Your task to perform on an android device: Open calendar and show me the third week of next month Image 0: 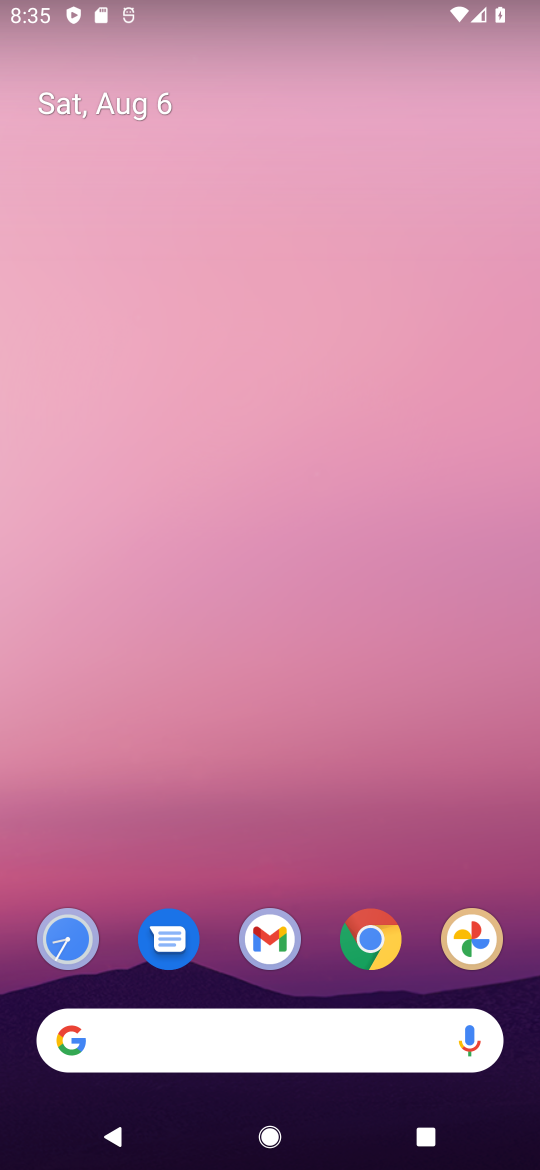
Step 0: drag from (314, 1025) to (328, 18)
Your task to perform on an android device: Open calendar and show me the third week of next month Image 1: 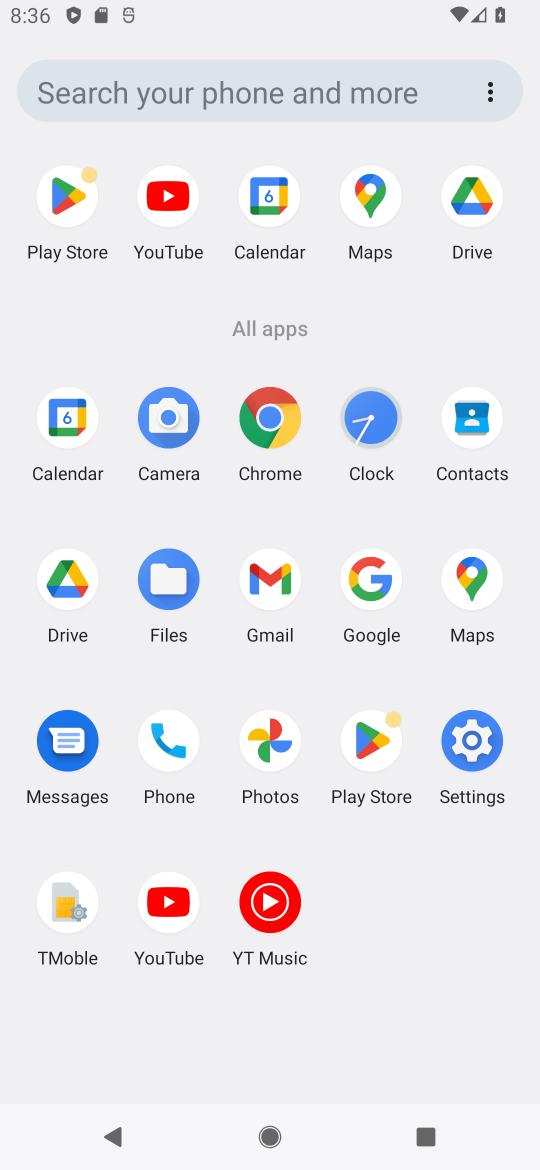
Step 1: click (55, 415)
Your task to perform on an android device: Open calendar and show me the third week of next month Image 2: 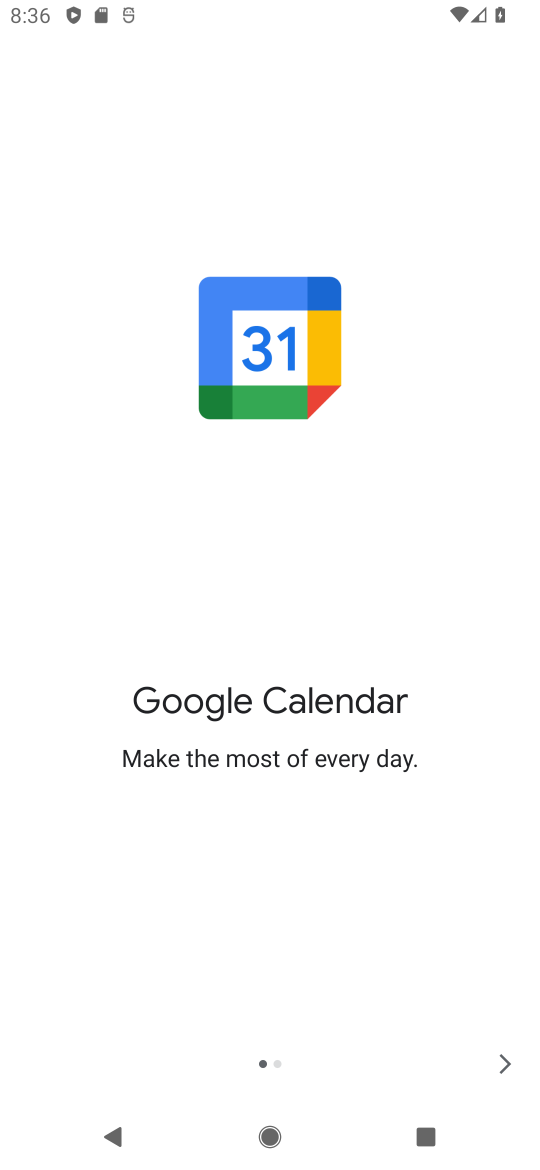
Step 2: click (495, 1070)
Your task to perform on an android device: Open calendar and show me the third week of next month Image 3: 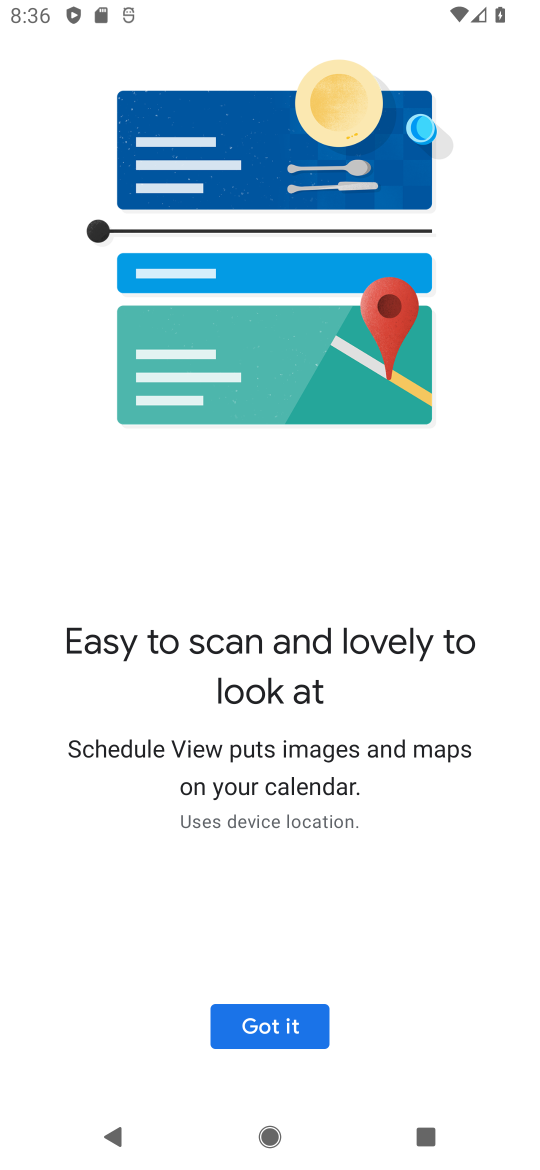
Step 3: click (495, 1070)
Your task to perform on an android device: Open calendar and show me the third week of next month Image 4: 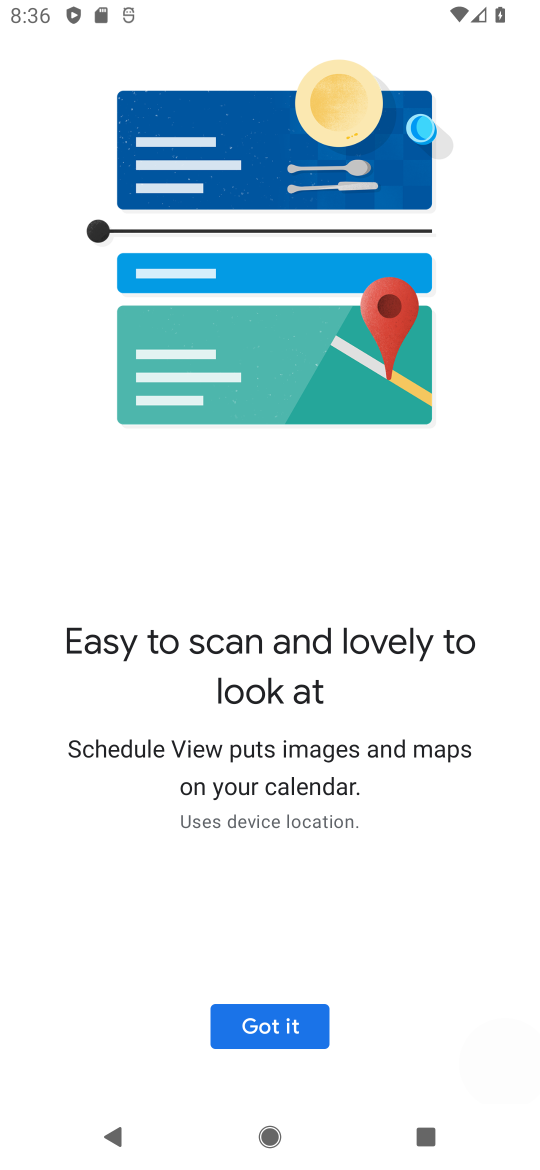
Step 4: click (306, 1037)
Your task to perform on an android device: Open calendar and show me the third week of next month Image 5: 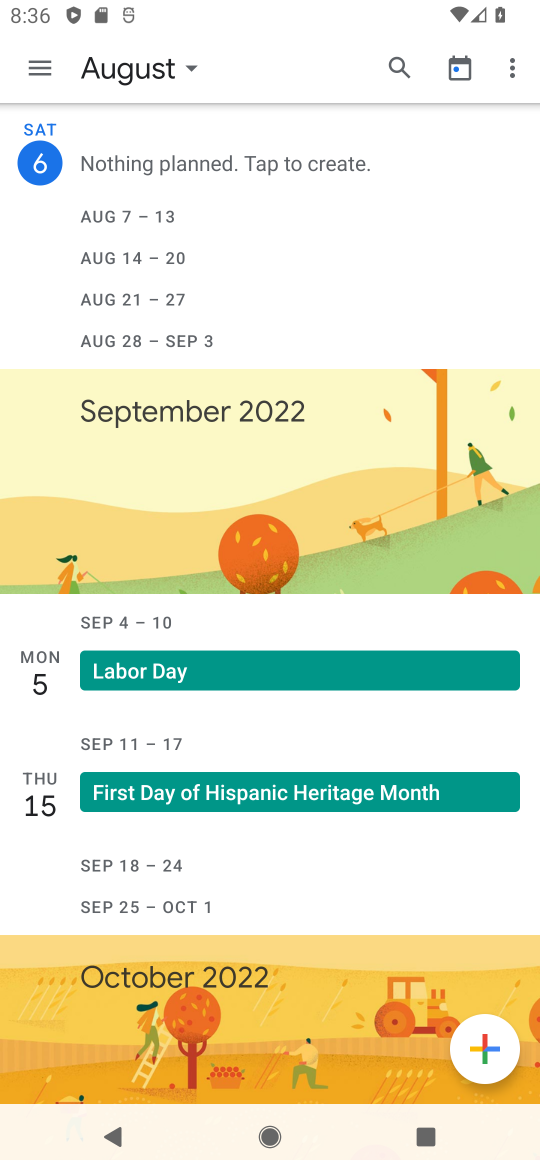
Step 5: click (37, 66)
Your task to perform on an android device: Open calendar and show me the third week of next month Image 6: 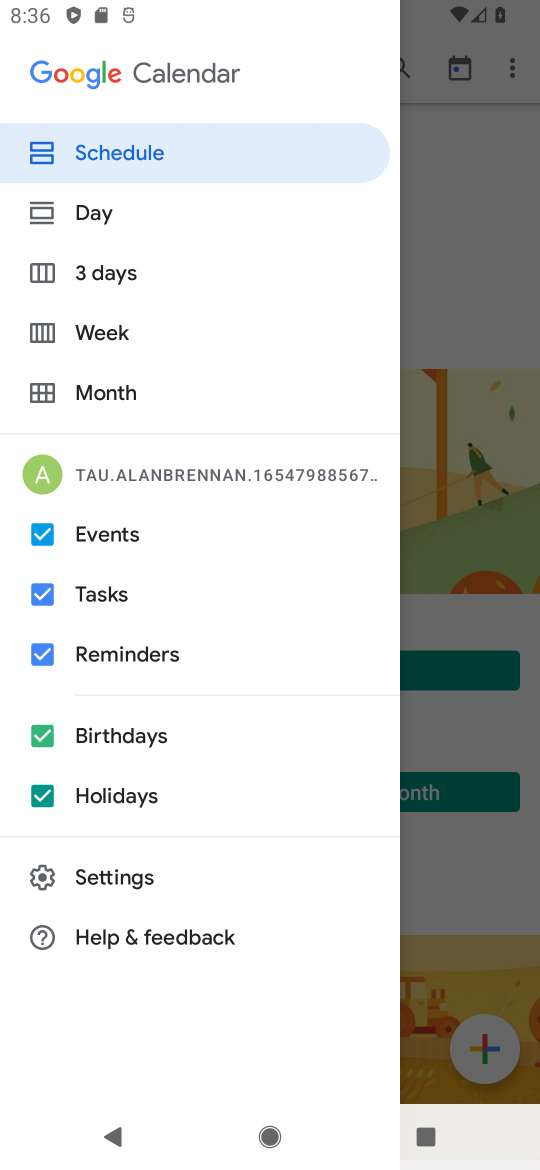
Step 6: click (75, 334)
Your task to perform on an android device: Open calendar and show me the third week of next month Image 7: 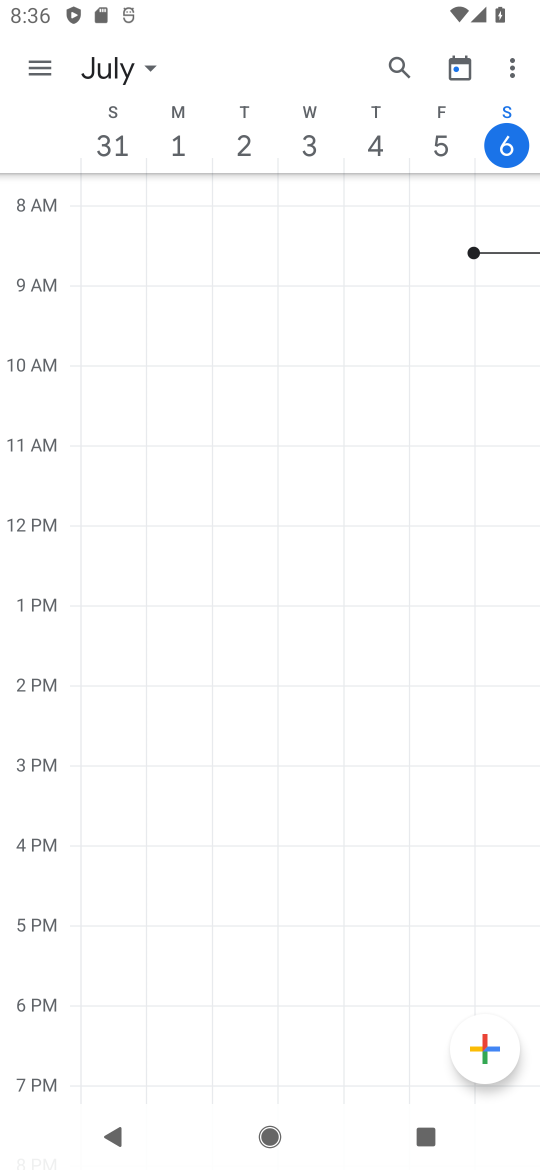
Step 7: task complete